Your task to perform on an android device: Go to Google Image 0: 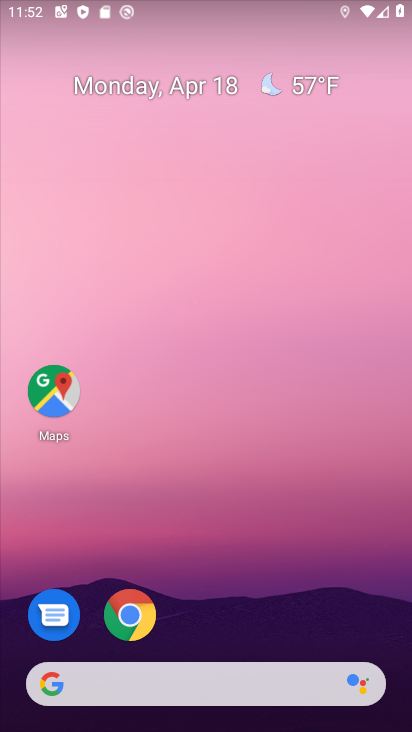
Step 0: click (143, 614)
Your task to perform on an android device: Go to Google Image 1: 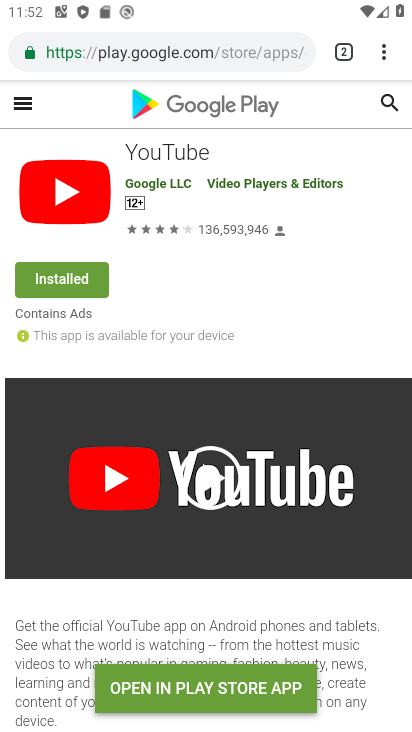
Step 1: task complete